Your task to perform on an android device: delete a single message in the gmail app Image 0: 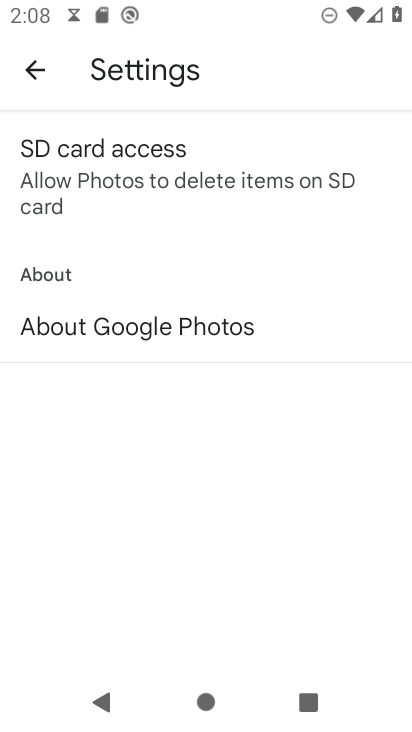
Step 0: press home button
Your task to perform on an android device: delete a single message in the gmail app Image 1: 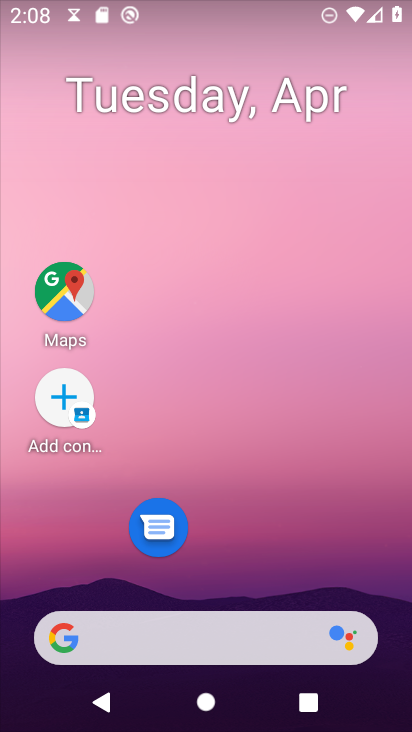
Step 1: drag from (240, 501) to (173, 157)
Your task to perform on an android device: delete a single message in the gmail app Image 2: 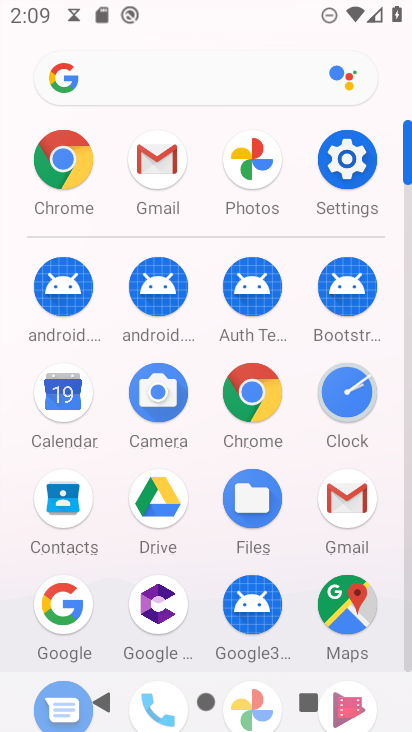
Step 2: click (344, 493)
Your task to perform on an android device: delete a single message in the gmail app Image 3: 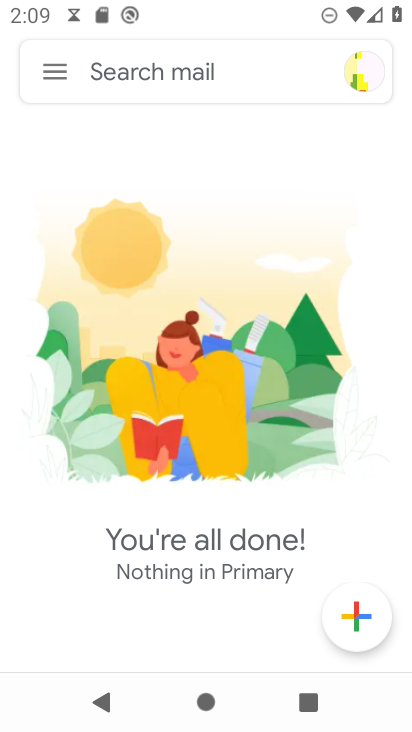
Step 3: click (56, 76)
Your task to perform on an android device: delete a single message in the gmail app Image 4: 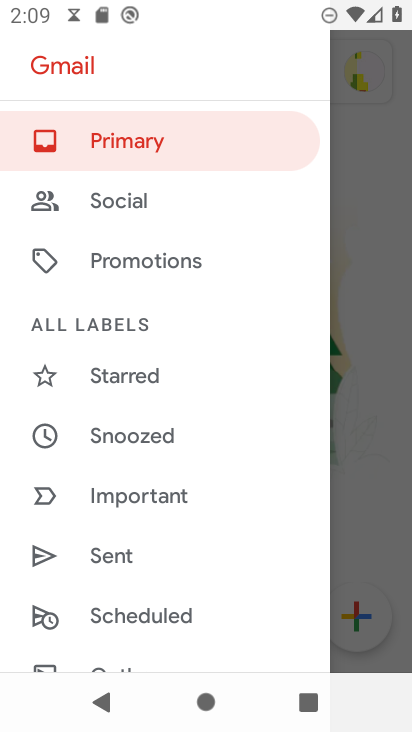
Step 4: drag from (160, 377) to (150, 327)
Your task to perform on an android device: delete a single message in the gmail app Image 5: 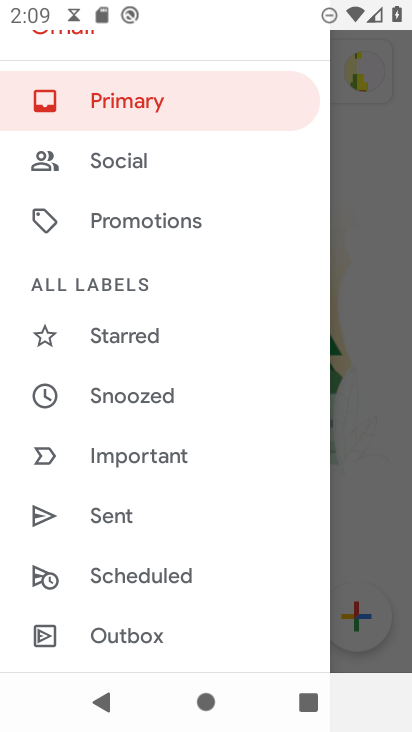
Step 5: drag from (142, 489) to (156, 414)
Your task to perform on an android device: delete a single message in the gmail app Image 6: 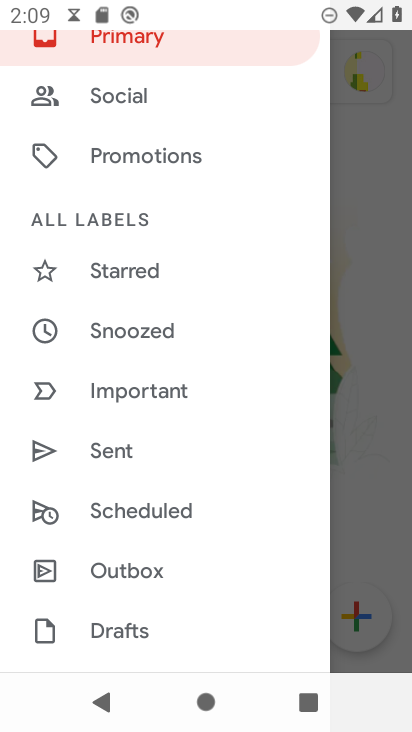
Step 6: drag from (162, 552) to (163, 471)
Your task to perform on an android device: delete a single message in the gmail app Image 7: 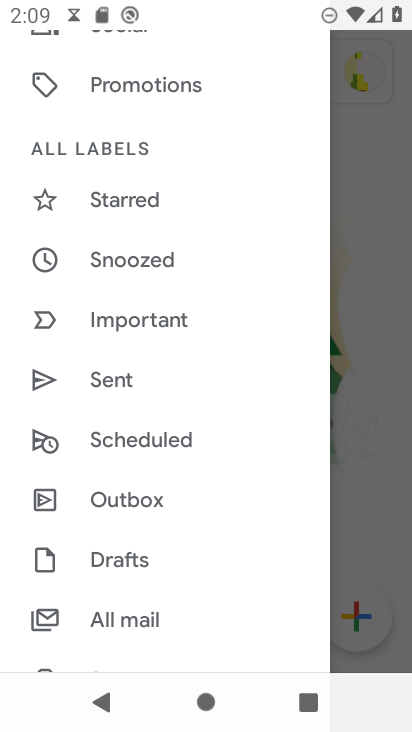
Step 7: drag from (163, 558) to (186, 455)
Your task to perform on an android device: delete a single message in the gmail app Image 8: 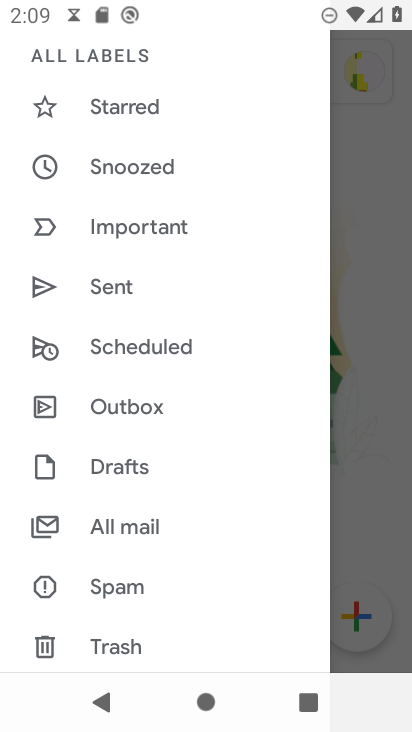
Step 8: click (147, 536)
Your task to perform on an android device: delete a single message in the gmail app Image 9: 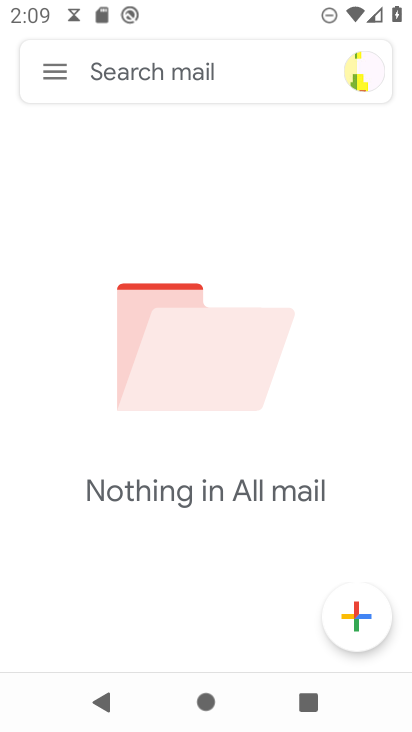
Step 9: task complete